Your task to perform on an android device: open app "eBay: The shopping marketplace" (install if not already installed) and go to login screen Image 0: 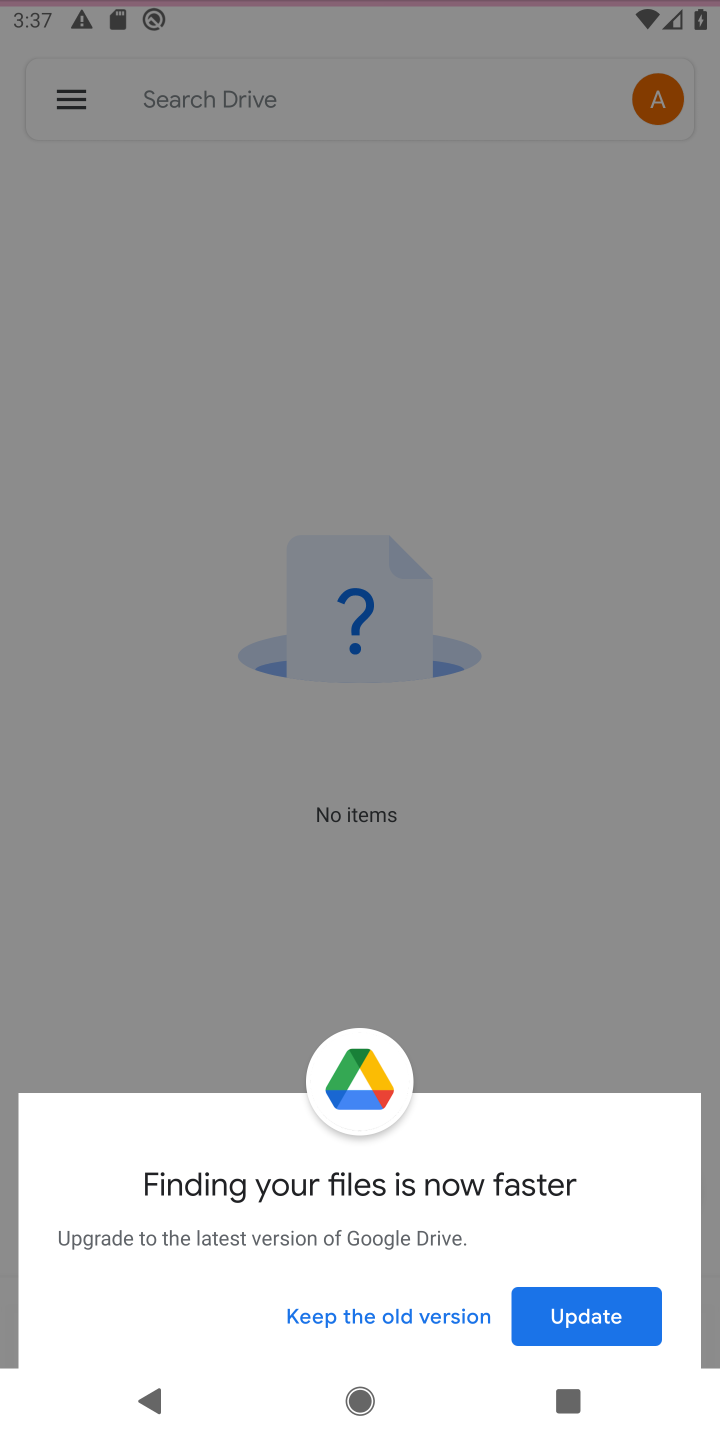
Step 0: press home button
Your task to perform on an android device: open app "eBay: The shopping marketplace" (install if not already installed) and go to login screen Image 1: 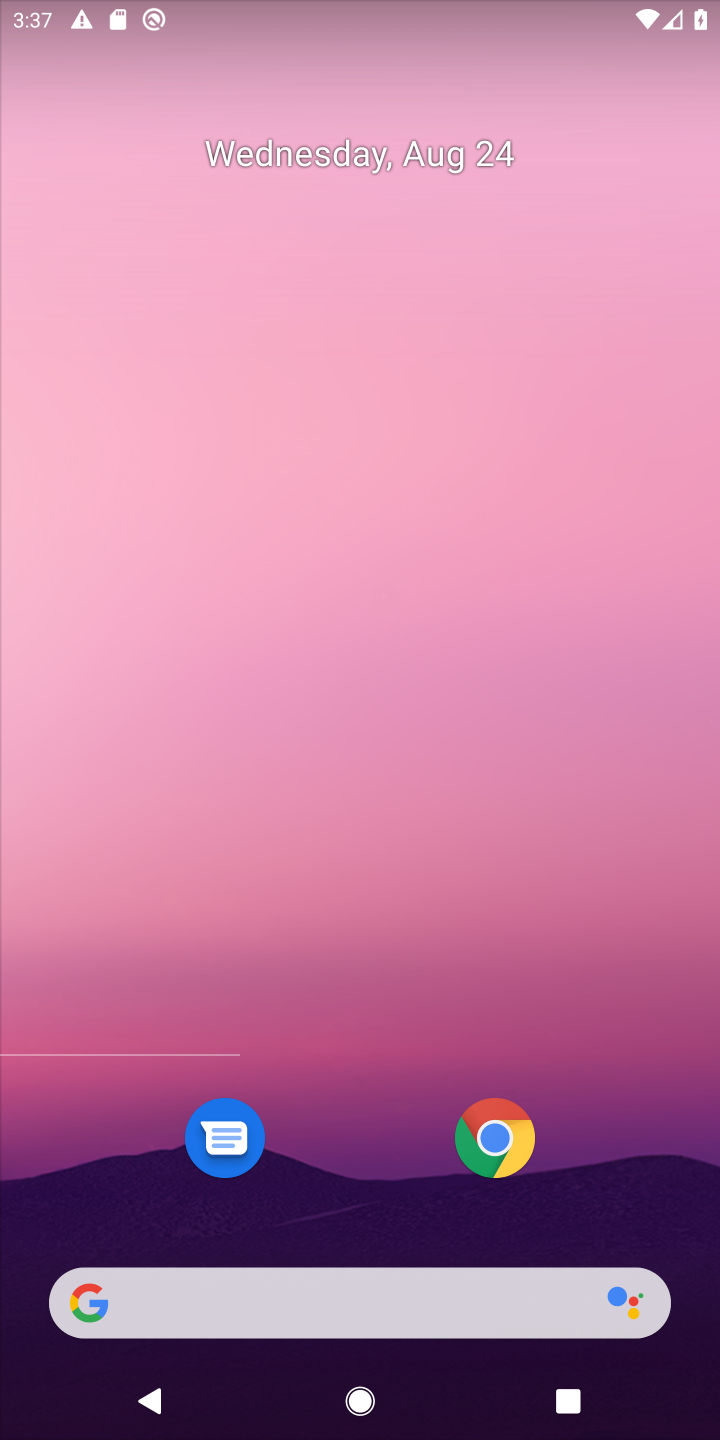
Step 1: press home button
Your task to perform on an android device: open app "eBay: The shopping marketplace" (install if not already installed) and go to login screen Image 2: 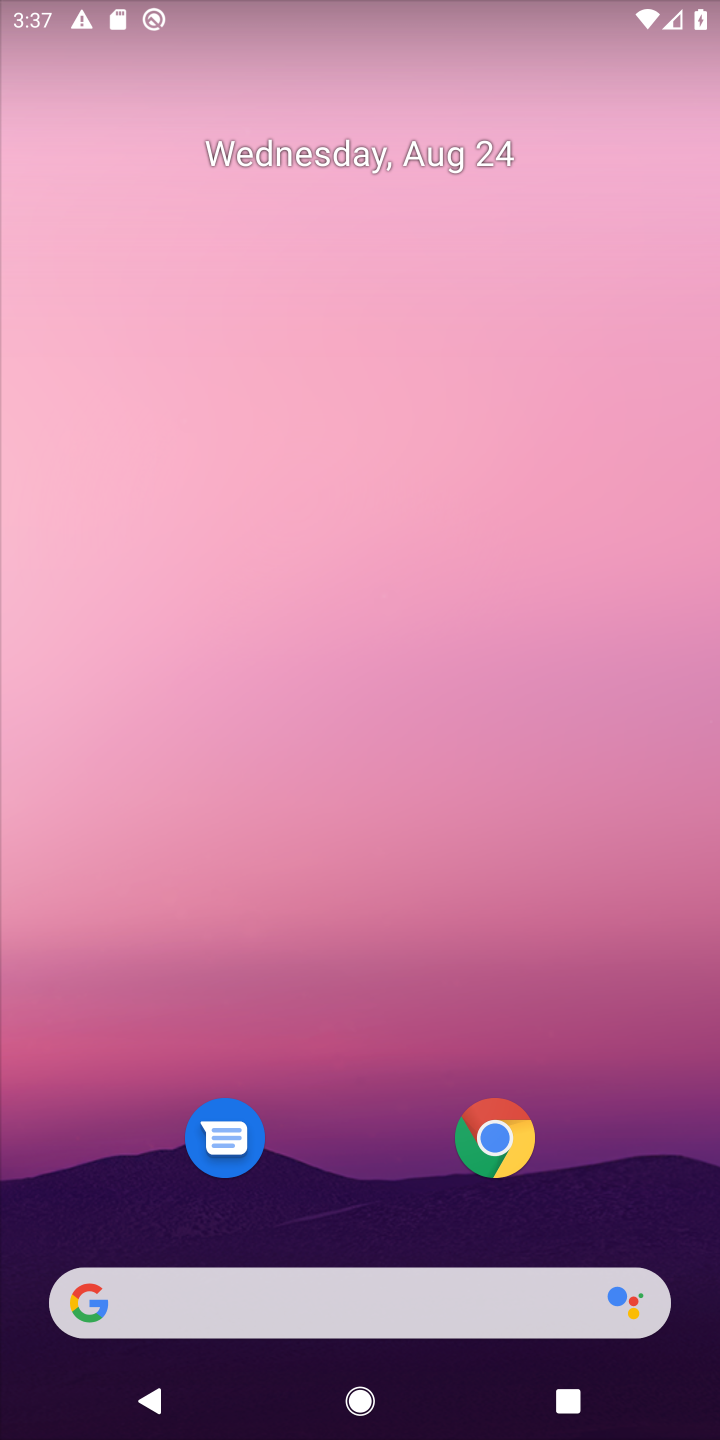
Step 2: drag from (364, 1016) to (308, 38)
Your task to perform on an android device: open app "eBay: The shopping marketplace" (install if not already installed) and go to login screen Image 3: 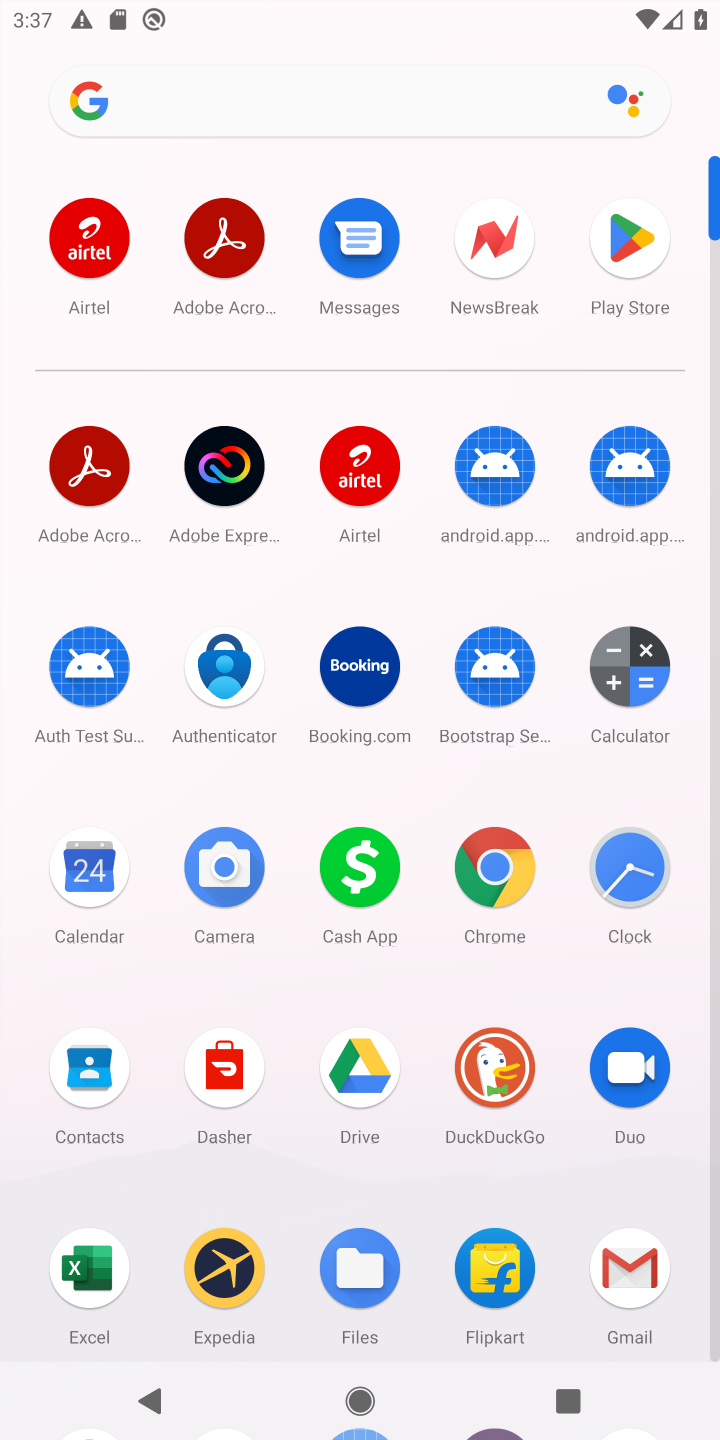
Step 3: click (620, 236)
Your task to perform on an android device: open app "eBay: The shopping marketplace" (install if not already installed) and go to login screen Image 4: 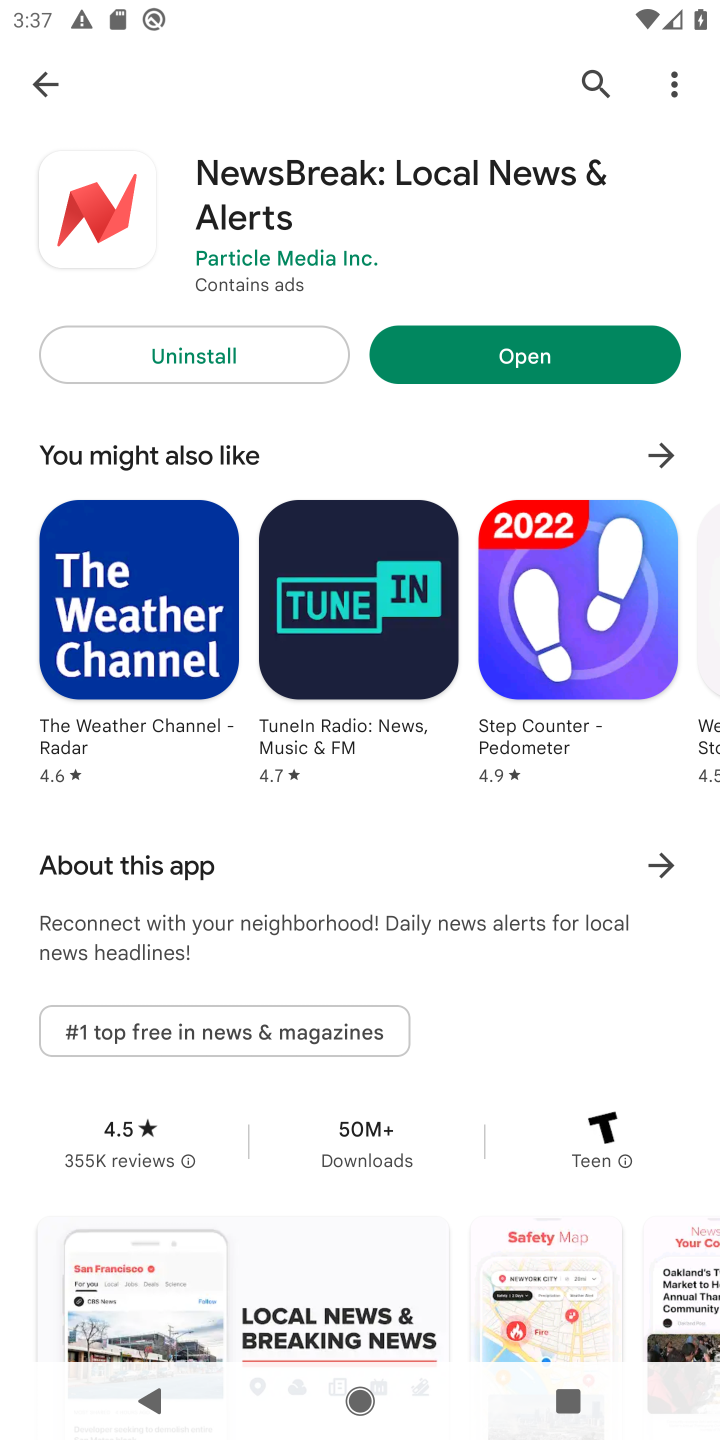
Step 4: click (591, 75)
Your task to perform on an android device: open app "eBay: The shopping marketplace" (install if not already installed) and go to login screen Image 5: 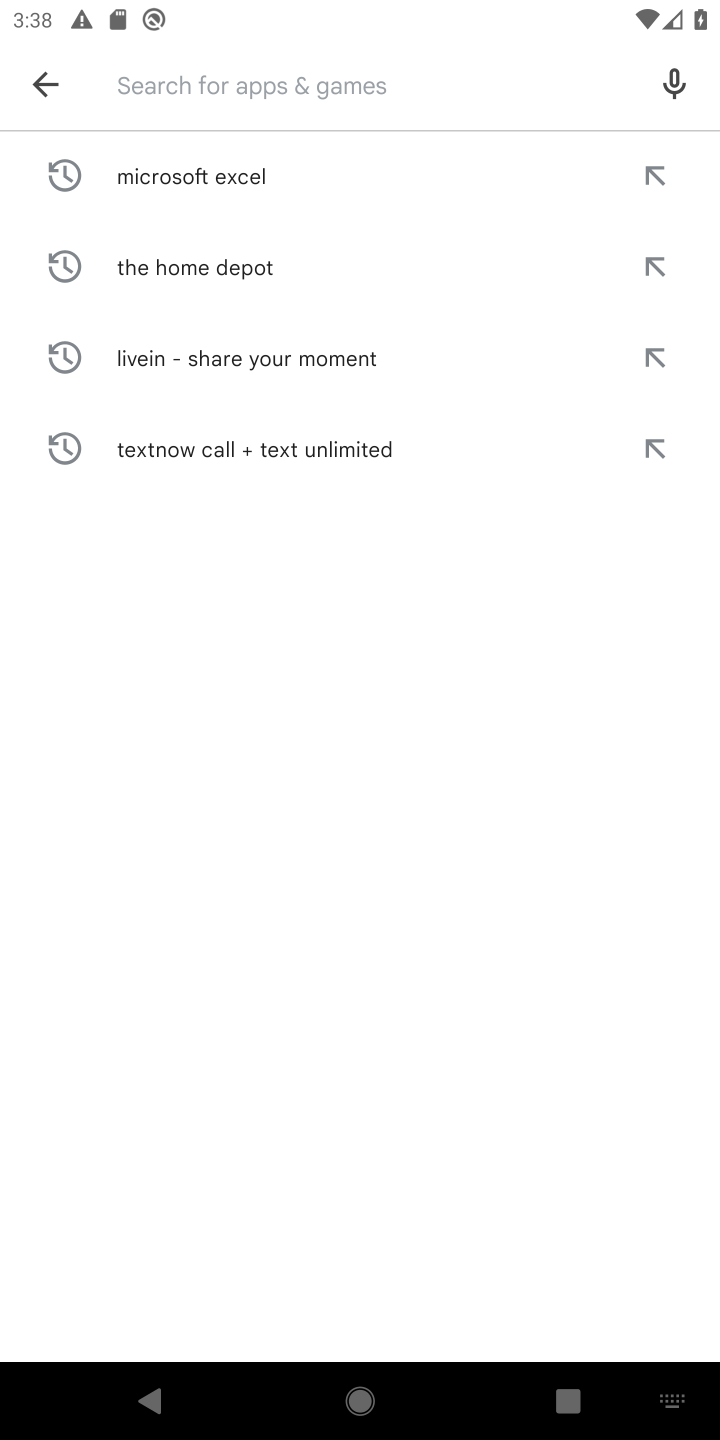
Step 5: type "eBay"
Your task to perform on an android device: open app "eBay: The shopping marketplace" (install if not already installed) and go to login screen Image 6: 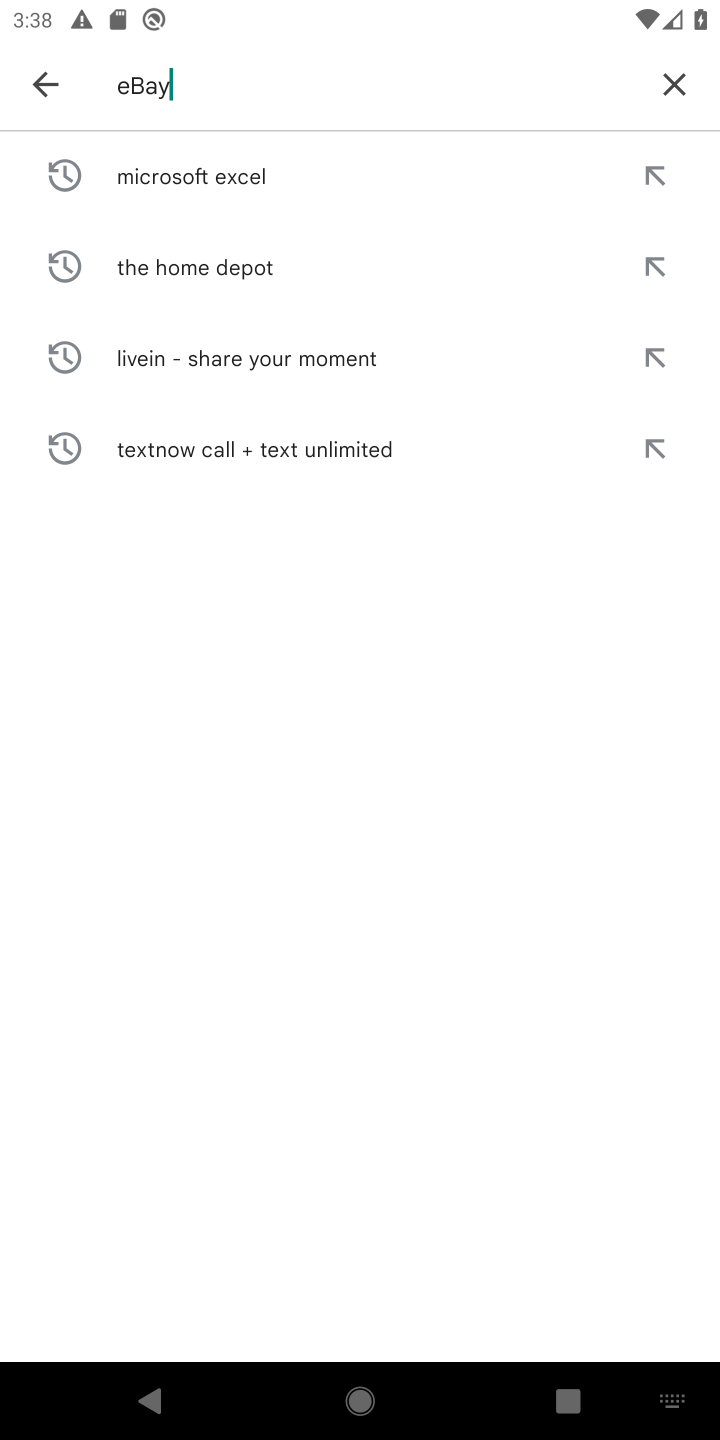
Step 6: type ""
Your task to perform on an android device: open app "eBay: The shopping marketplace" (install if not already installed) and go to login screen Image 7: 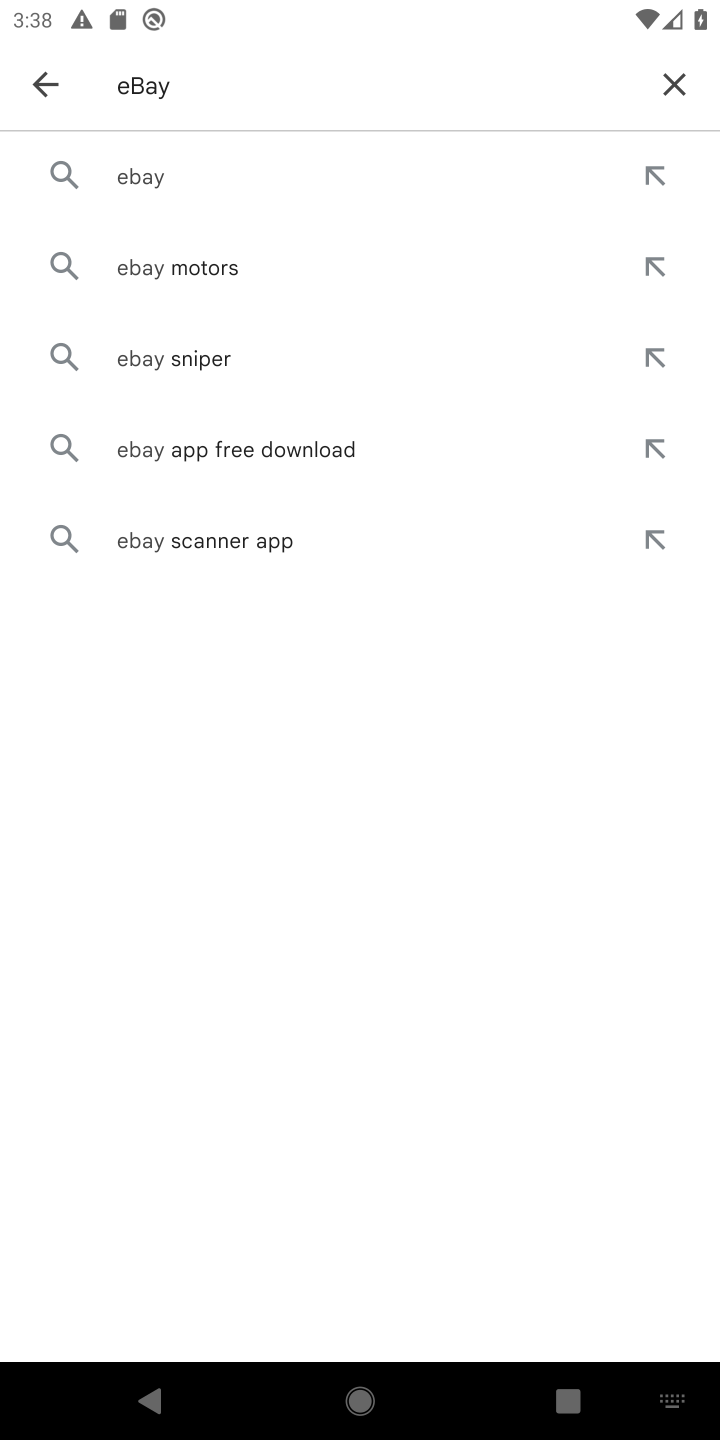
Step 7: click (139, 178)
Your task to perform on an android device: open app "eBay: The shopping marketplace" (install if not already installed) and go to login screen Image 8: 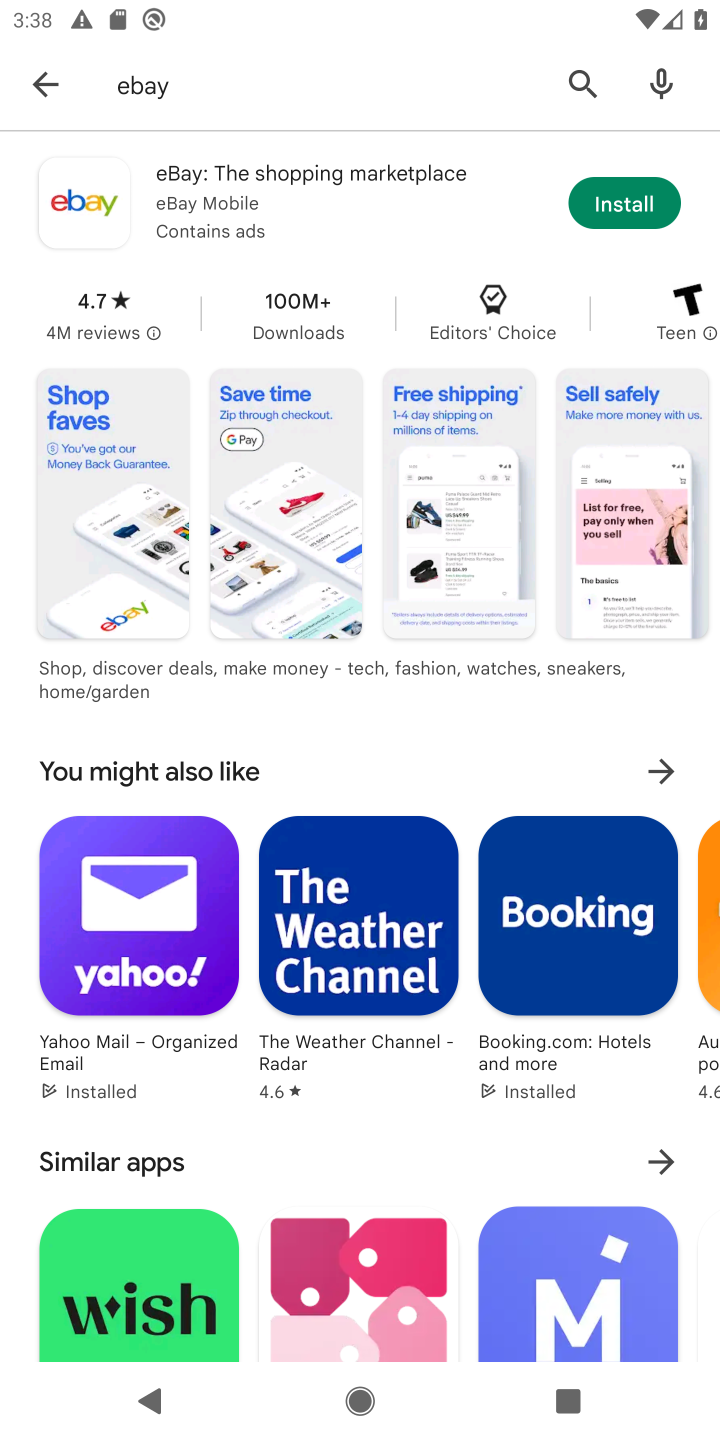
Step 8: click (631, 200)
Your task to perform on an android device: open app "eBay: The shopping marketplace" (install if not already installed) and go to login screen Image 9: 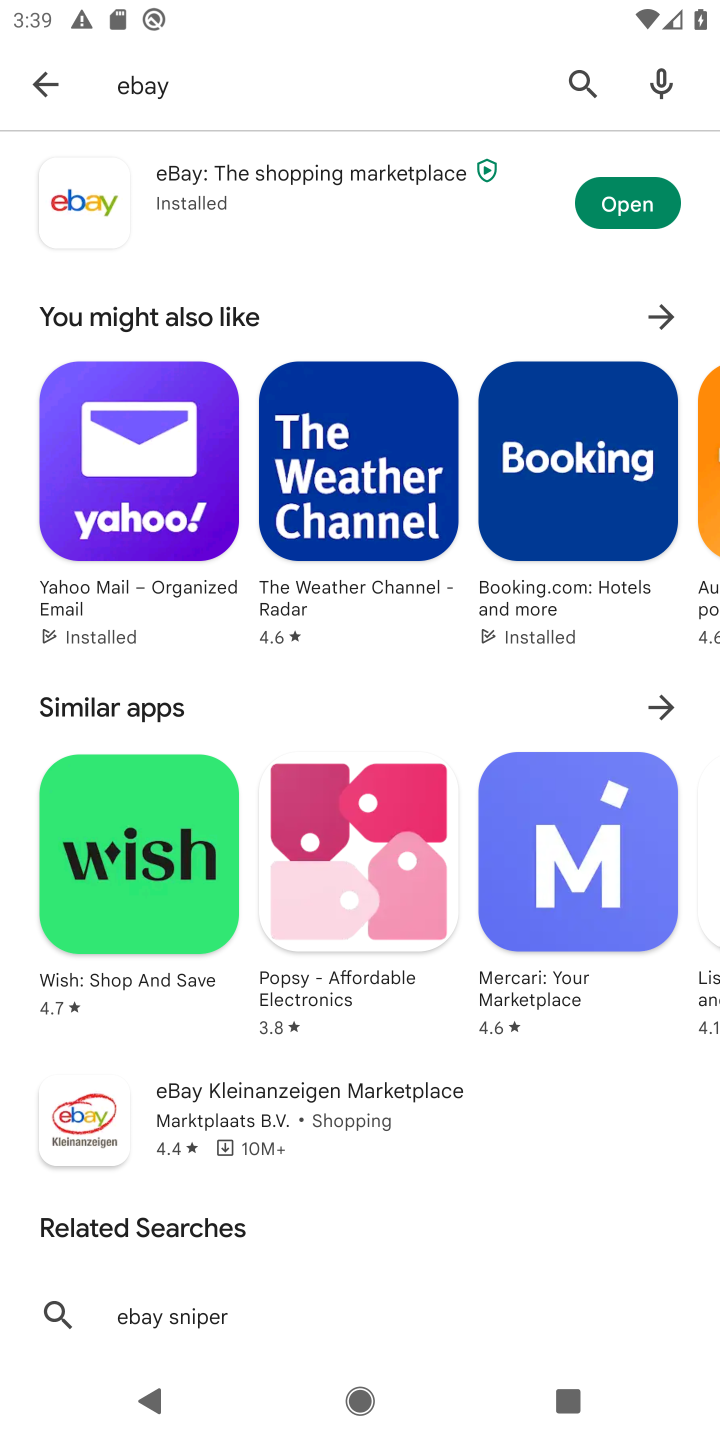
Step 9: click (627, 208)
Your task to perform on an android device: open app "eBay: The shopping marketplace" (install if not already installed) and go to login screen Image 10: 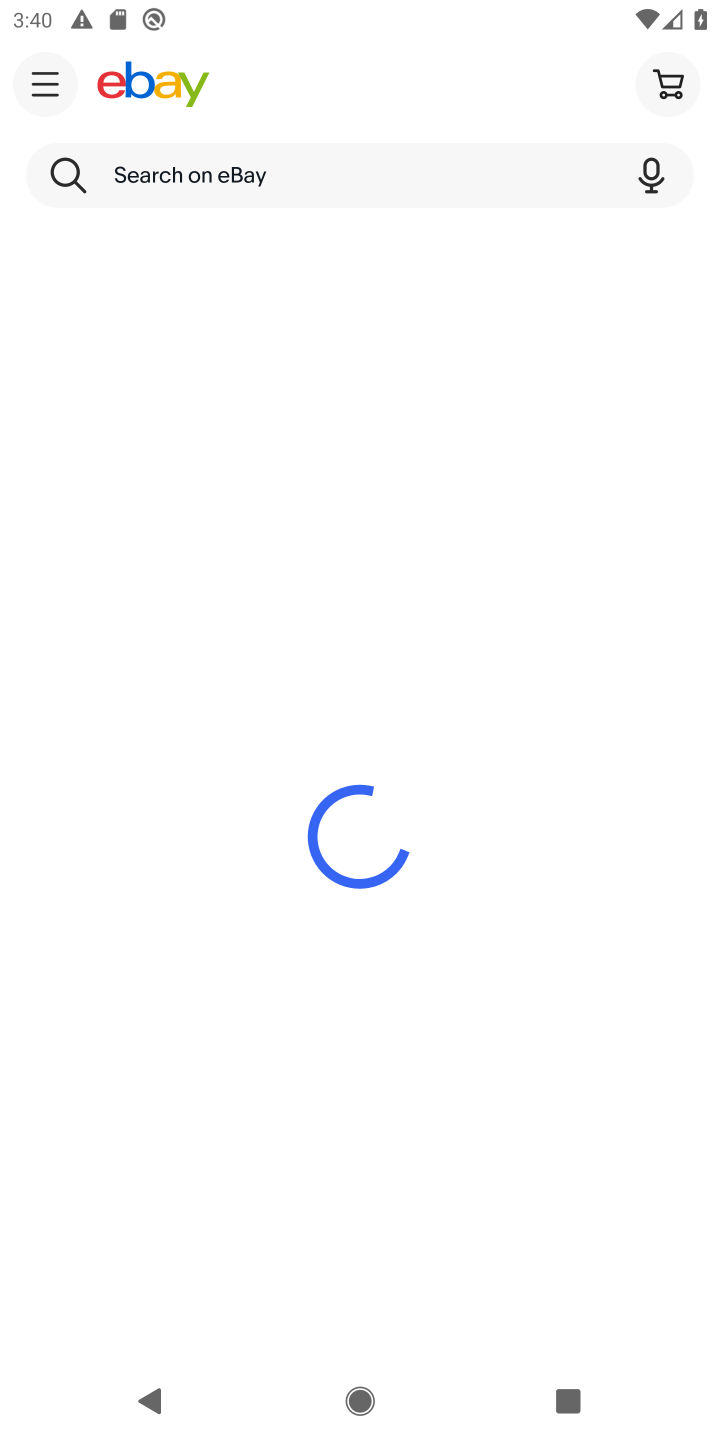
Step 10: click (49, 79)
Your task to perform on an android device: open app "eBay: The shopping marketplace" (install if not already installed) and go to login screen Image 11: 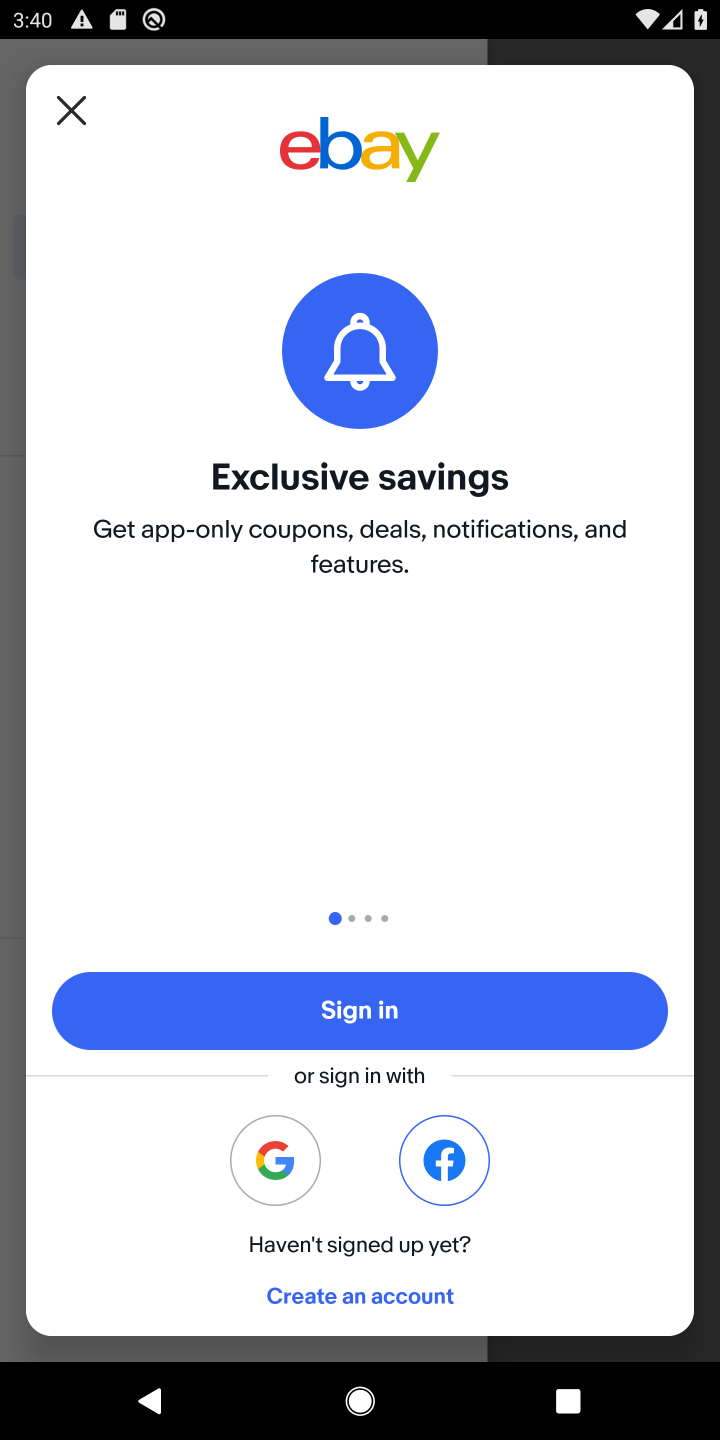
Step 11: task complete